Your task to perform on an android device: Go to notification settings Image 0: 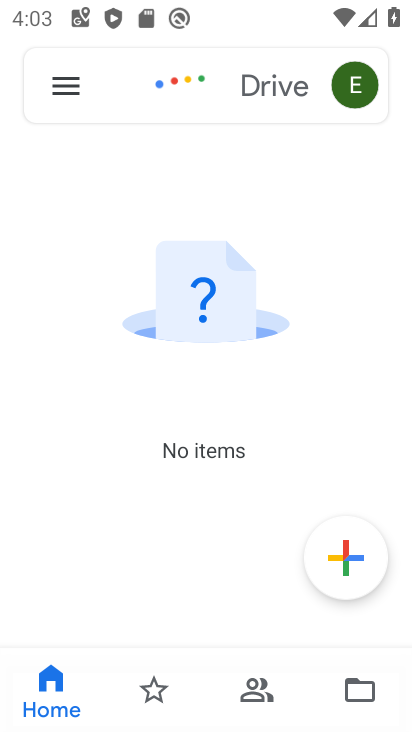
Step 0: press back button
Your task to perform on an android device: Go to notification settings Image 1: 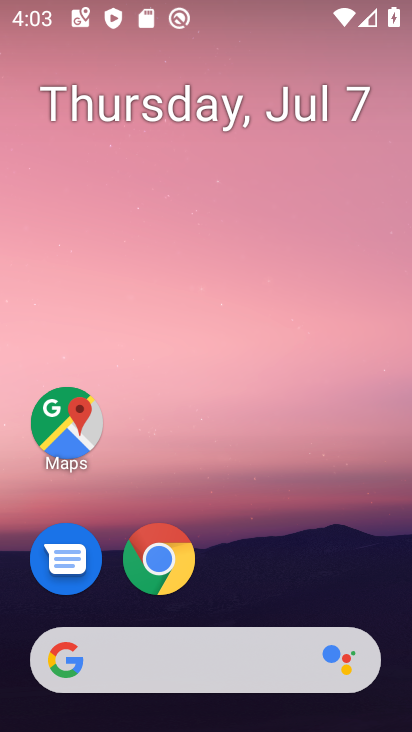
Step 1: drag from (220, 578) to (299, 39)
Your task to perform on an android device: Go to notification settings Image 2: 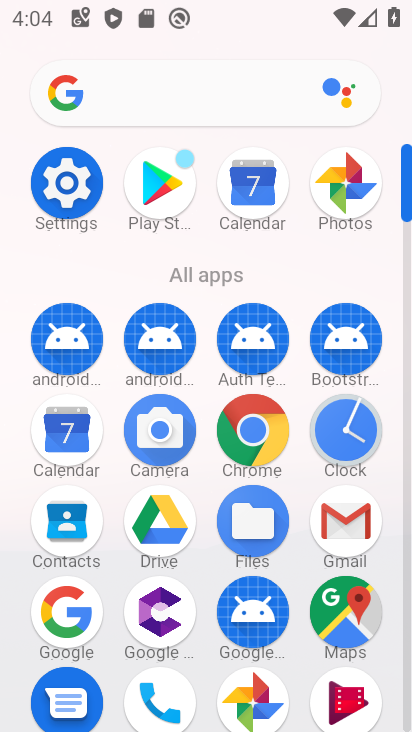
Step 2: click (59, 185)
Your task to perform on an android device: Go to notification settings Image 3: 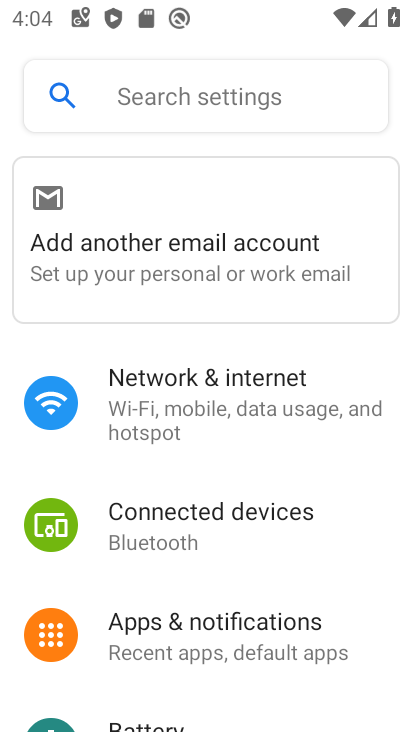
Step 3: click (227, 628)
Your task to perform on an android device: Go to notification settings Image 4: 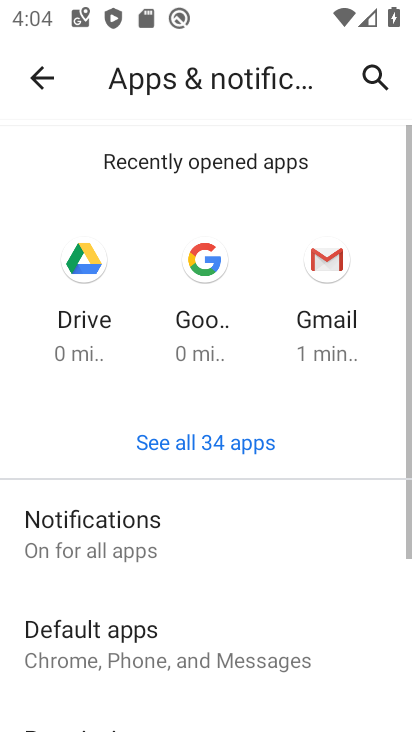
Step 4: click (156, 538)
Your task to perform on an android device: Go to notification settings Image 5: 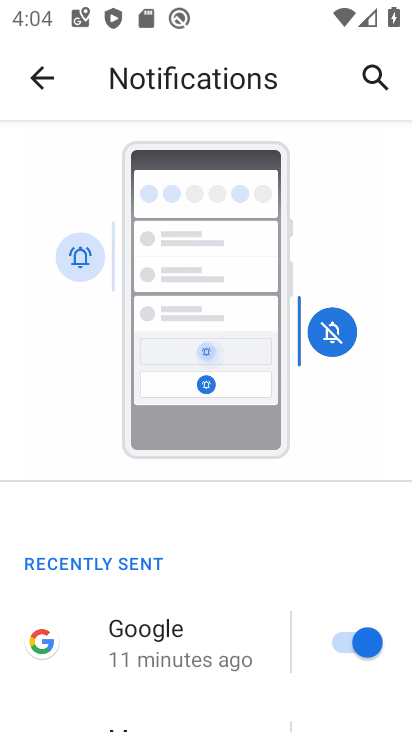
Step 5: task complete